Your task to perform on an android device: Go to Maps Image 0: 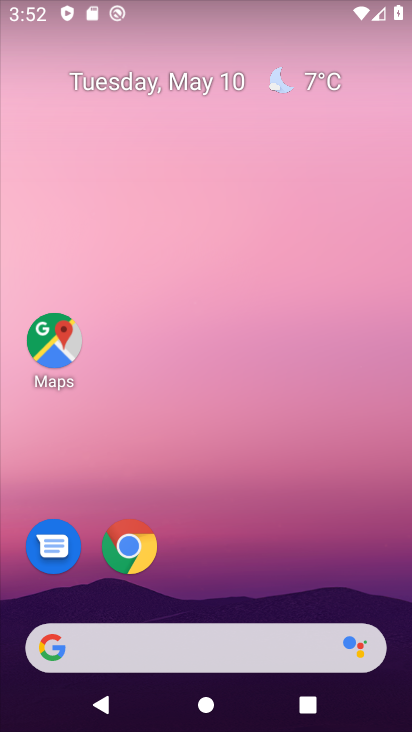
Step 0: drag from (198, 450) to (77, 73)
Your task to perform on an android device: Go to Maps Image 1: 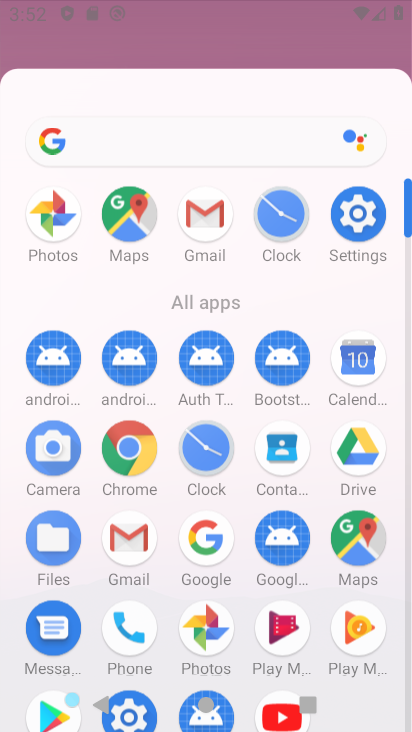
Step 1: drag from (259, 488) to (151, 108)
Your task to perform on an android device: Go to Maps Image 2: 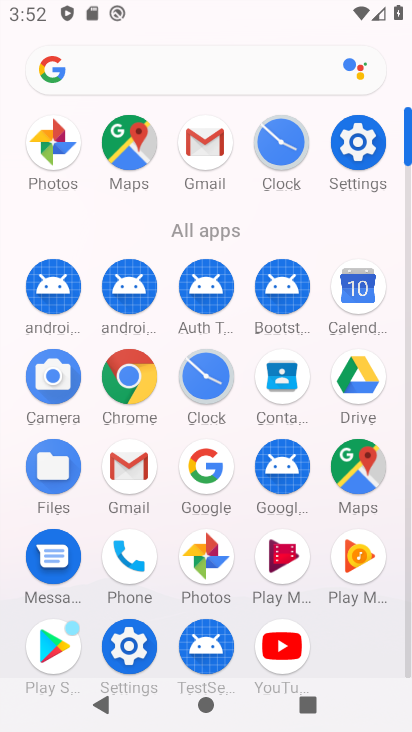
Step 2: click (132, 154)
Your task to perform on an android device: Go to Maps Image 3: 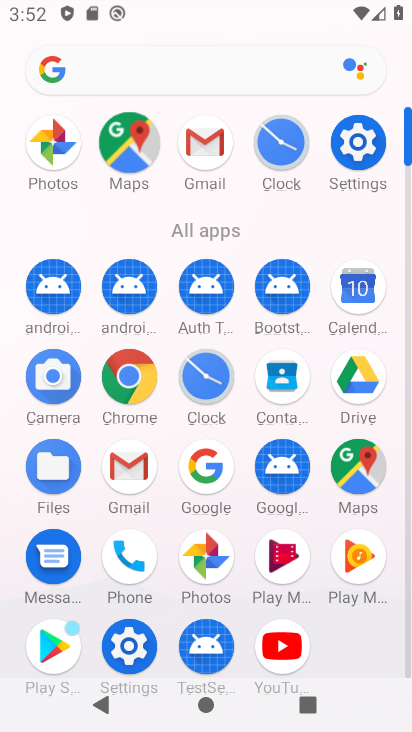
Step 3: click (124, 155)
Your task to perform on an android device: Go to Maps Image 4: 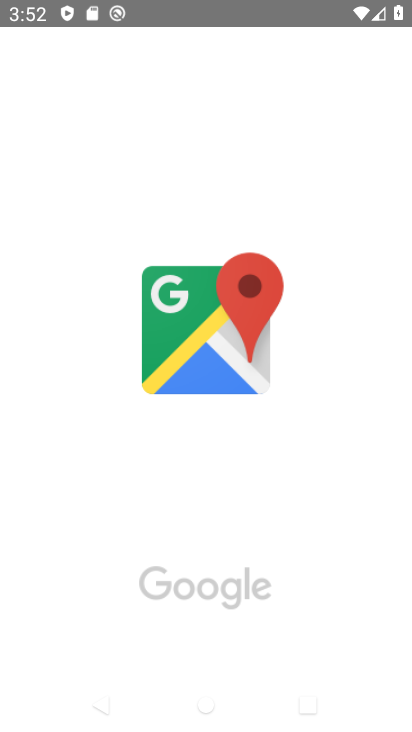
Step 4: click (207, 327)
Your task to perform on an android device: Go to Maps Image 5: 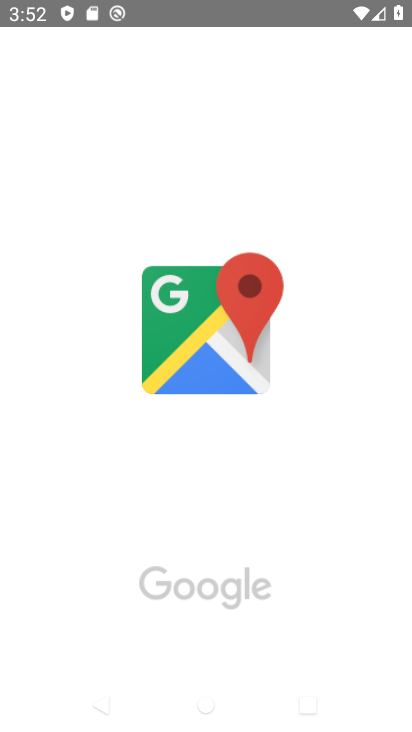
Step 5: click (211, 323)
Your task to perform on an android device: Go to Maps Image 6: 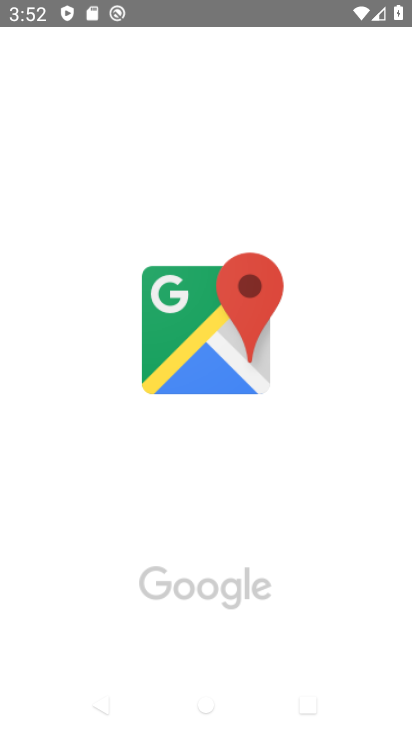
Step 6: click (253, 324)
Your task to perform on an android device: Go to Maps Image 7: 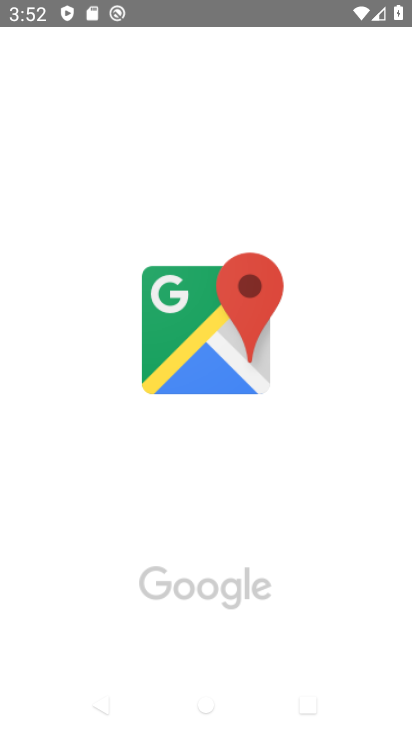
Step 7: click (148, 322)
Your task to perform on an android device: Go to Maps Image 8: 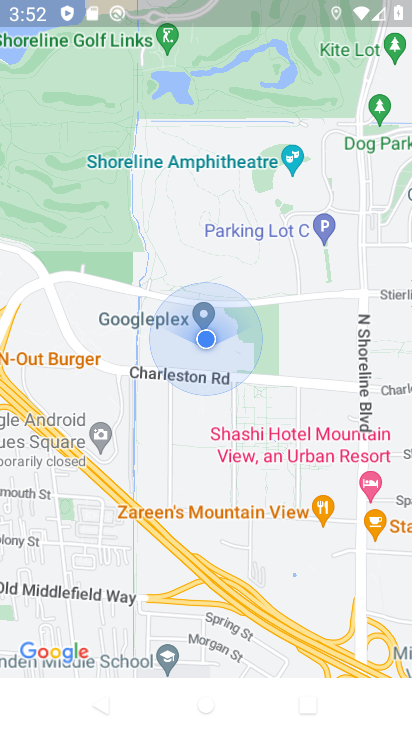
Step 8: task complete